Your task to perform on an android device: Search for Mexican restaurants on Maps Image 0: 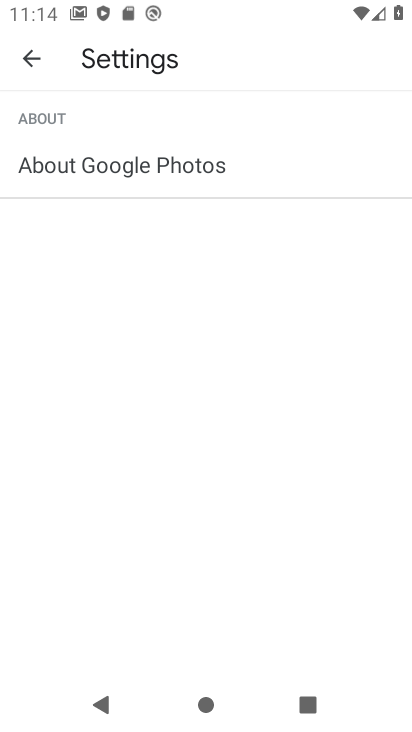
Step 0: press home button
Your task to perform on an android device: Search for Mexican restaurants on Maps Image 1: 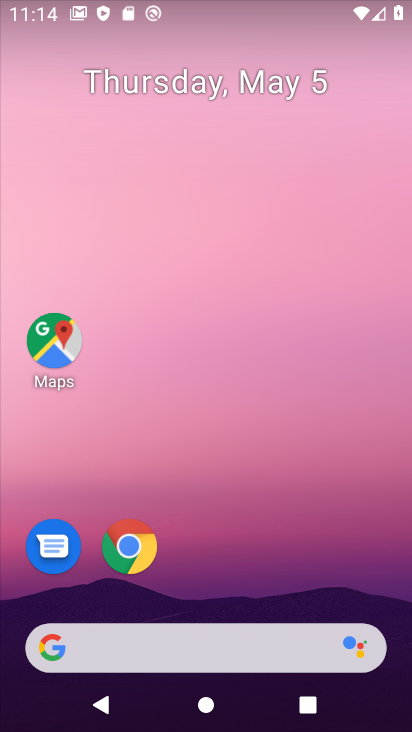
Step 1: click (46, 345)
Your task to perform on an android device: Search for Mexican restaurants on Maps Image 2: 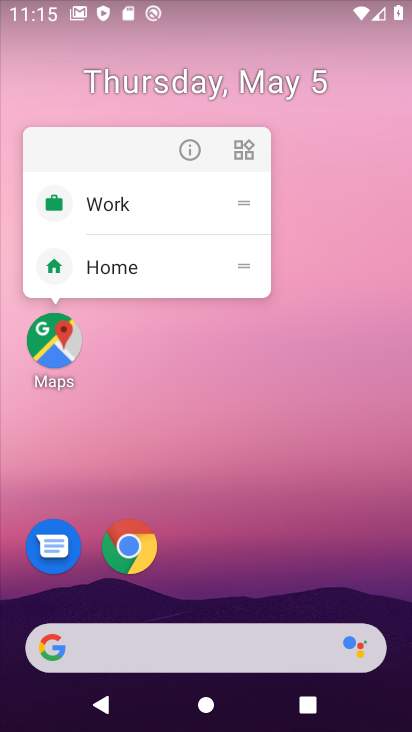
Step 2: click (52, 335)
Your task to perform on an android device: Search for Mexican restaurants on Maps Image 3: 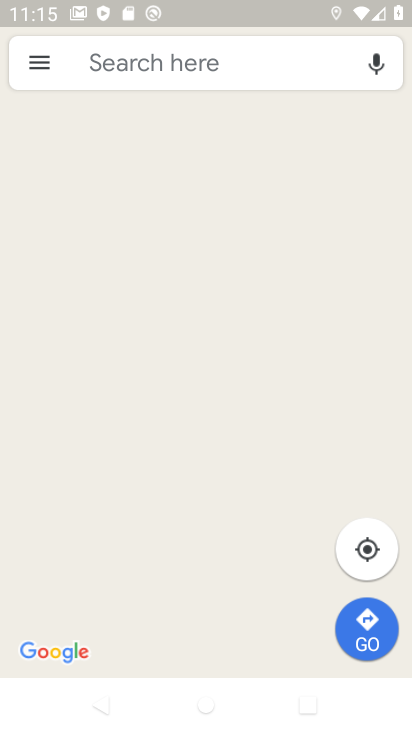
Step 3: click (165, 60)
Your task to perform on an android device: Search for Mexican restaurants on Maps Image 4: 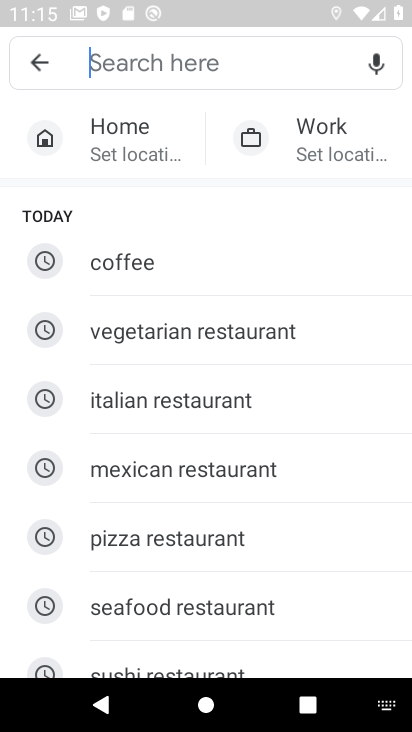
Step 4: click (257, 464)
Your task to perform on an android device: Search for Mexican restaurants on Maps Image 5: 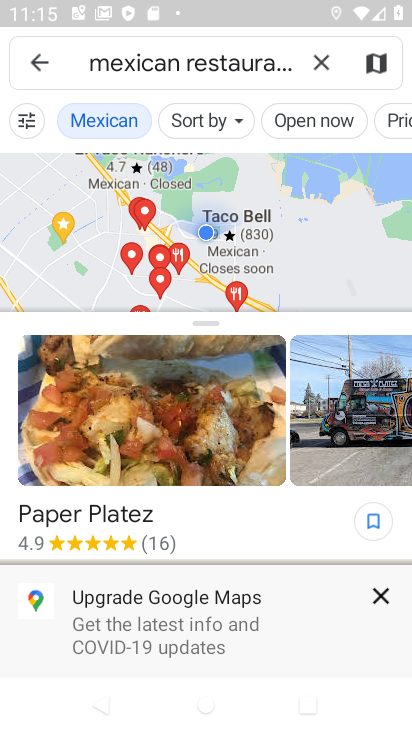
Step 5: task complete